Your task to perform on an android device: open the mobile data screen to see how much data has been used Image 0: 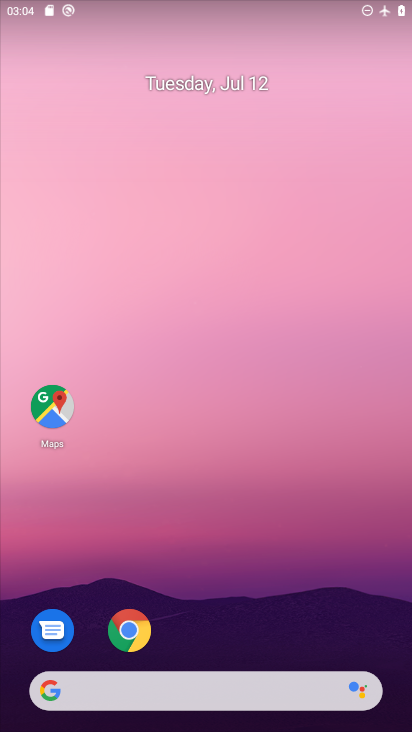
Step 0: drag from (375, 647) to (344, 253)
Your task to perform on an android device: open the mobile data screen to see how much data has been used Image 1: 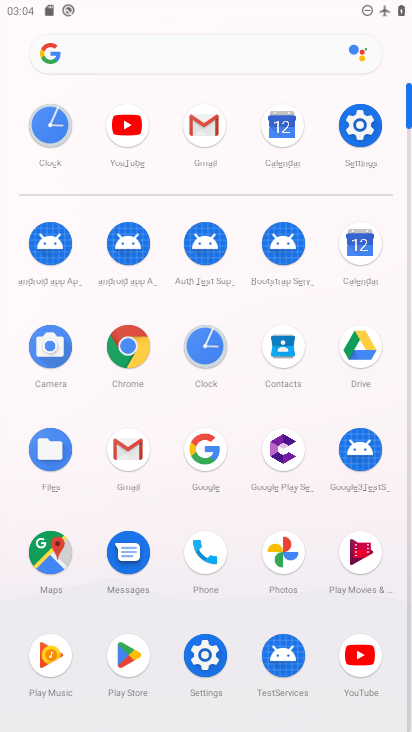
Step 1: click (208, 655)
Your task to perform on an android device: open the mobile data screen to see how much data has been used Image 2: 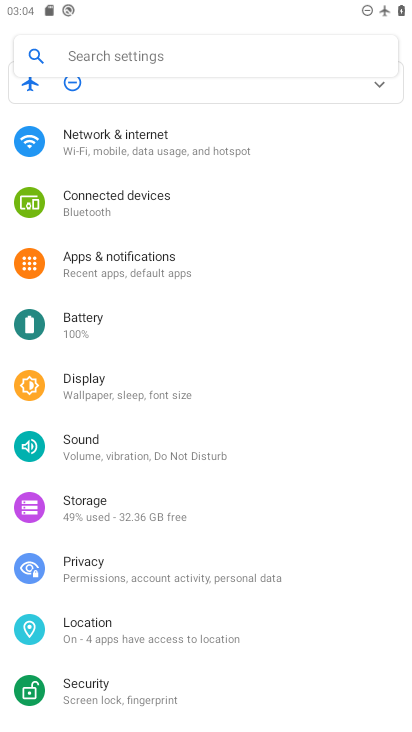
Step 2: click (118, 138)
Your task to perform on an android device: open the mobile data screen to see how much data has been used Image 3: 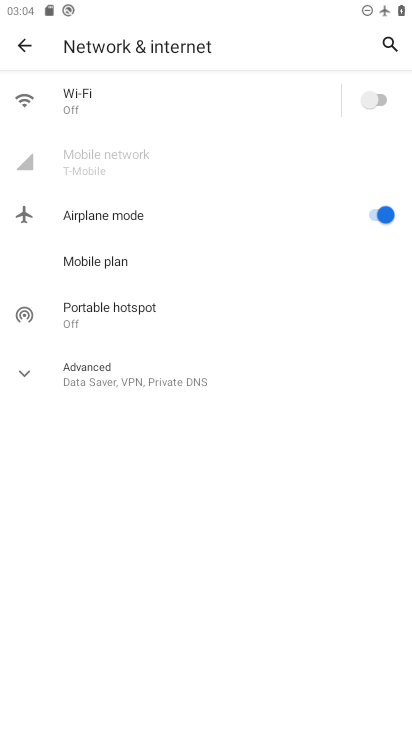
Step 3: task complete